Your task to perform on an android device: turn on the 24-hour format for clock Image 0: 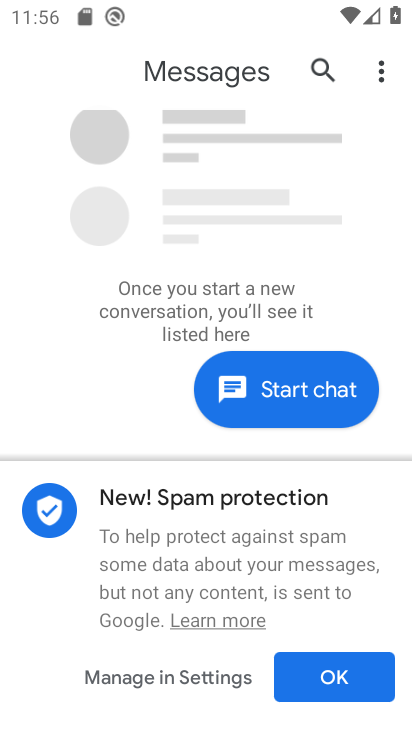
Step 0: press home button
Your task to perform on an android device: turn on the 24-hour format for clock Image 1: 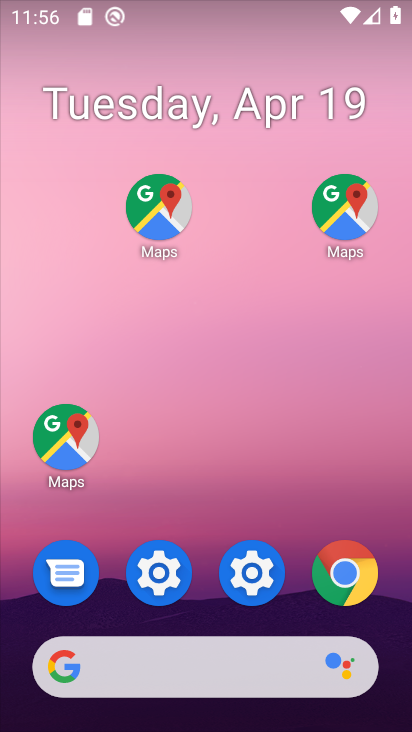
Step 1: drag from (237, 513) to (142, 181)
Your task to perform on an android device: turn on the 24-hour format for clock Image 2: 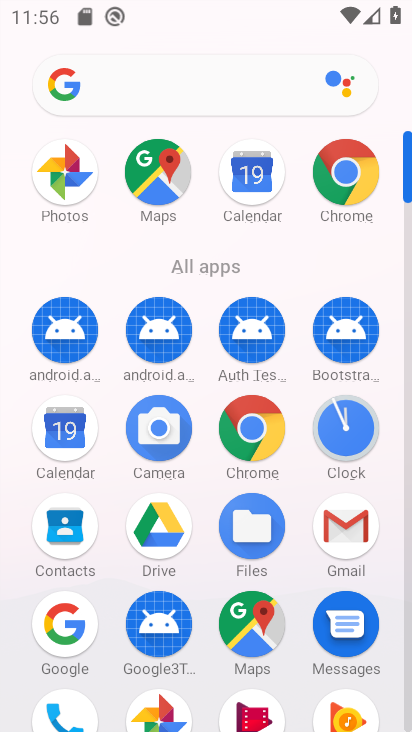
Step 2: click (338, 425)
Your task to perform on an android device: turn on the 24-hour format for clock Image 3: 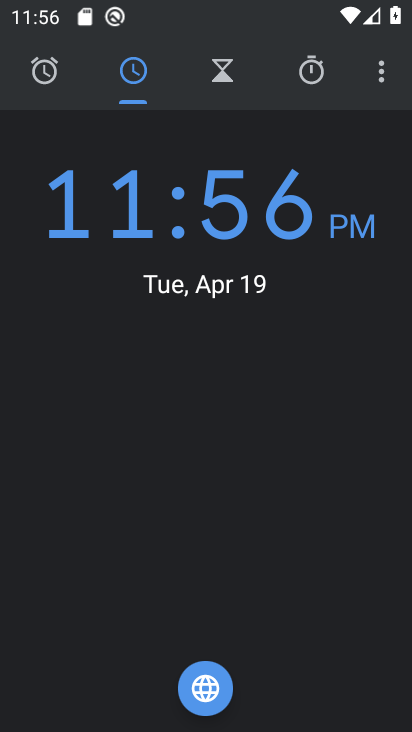
Step 3: click (377, 56)
Your task to perform on an android device: turn on the 24-hour format for clock Image 4: 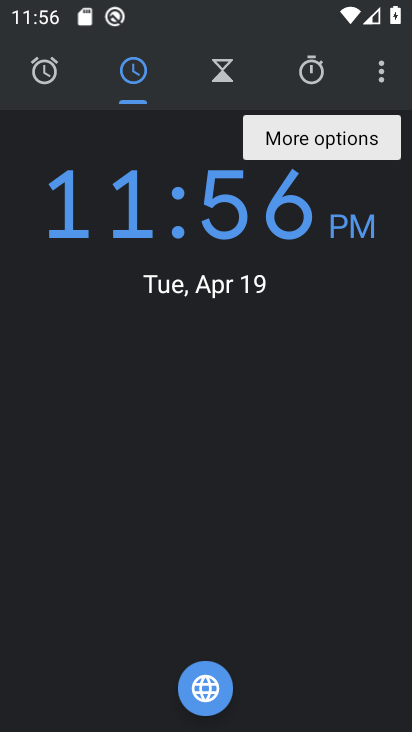
Step 4: click (381, 71)
Your task to perform on an android device: turn on the 24-hour format for clock Image 5: 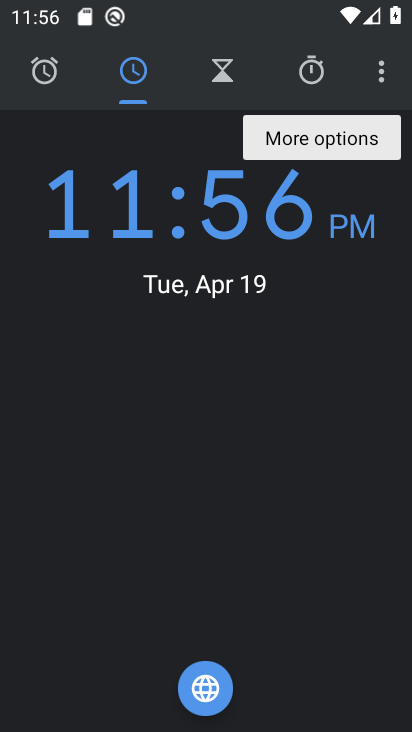
Step 5: click (381, 71)
Your task to perform on an android device: turn on the 24-hour format for clock Image 6: 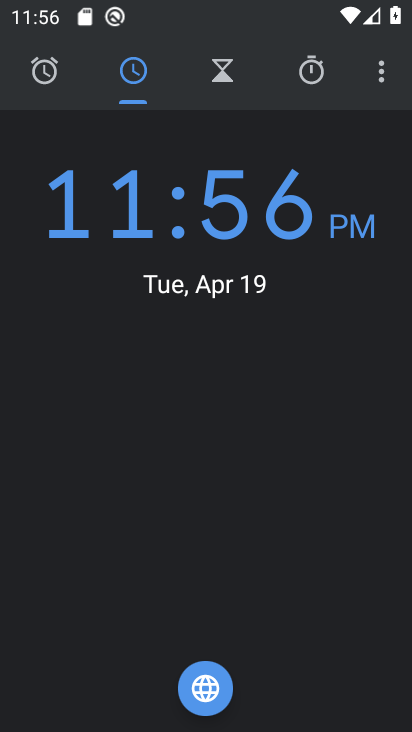
Step 6: click (380, 69)
Your task to perform on an android device: turn on the 24-hour format for clock Image 7: 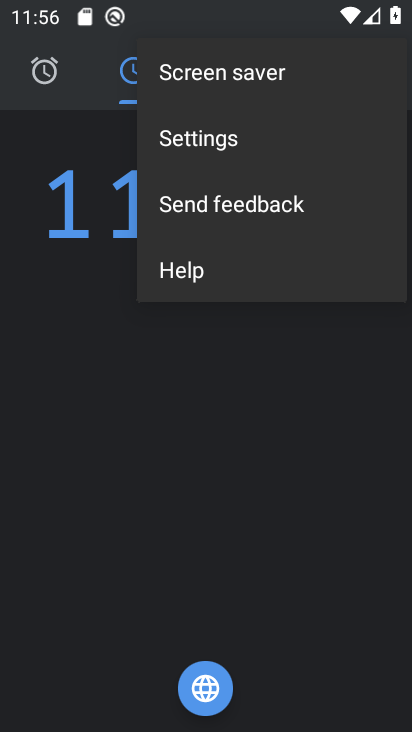
Step 7: click (193, 128)
Your task to perform on an android device: turn on the 24-hour format for clock Image 8: 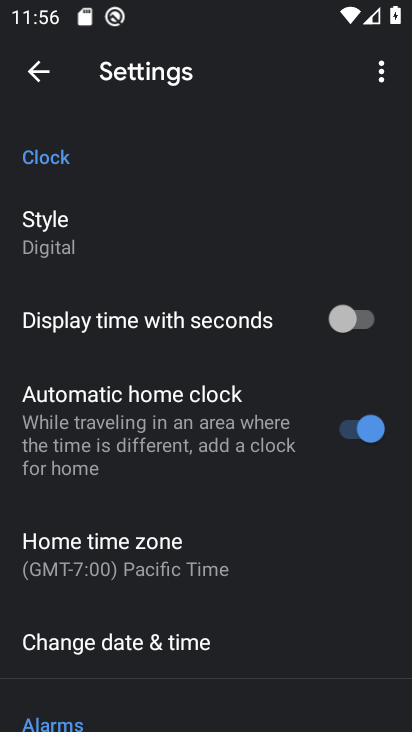
Step 8: drag from (177, 489) to (163, 356)
Your task to perform on an android device: turn on the 24-hour format for clock Image 9: 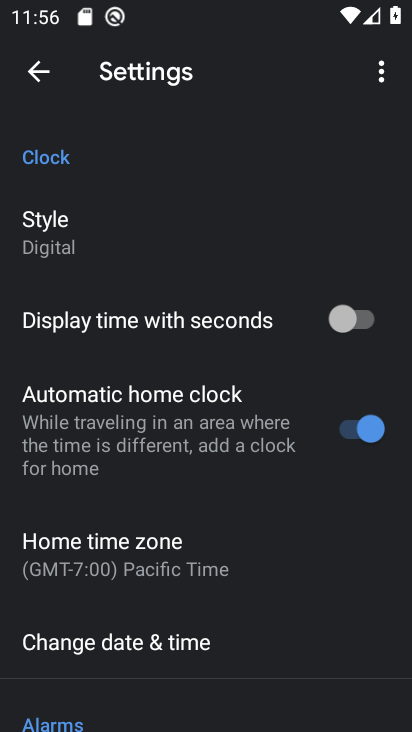
Step 9: drag from (162, 566) to (114, 315)
Your task to perform on an android device: turn on the 24-hour format for clock Image 10: 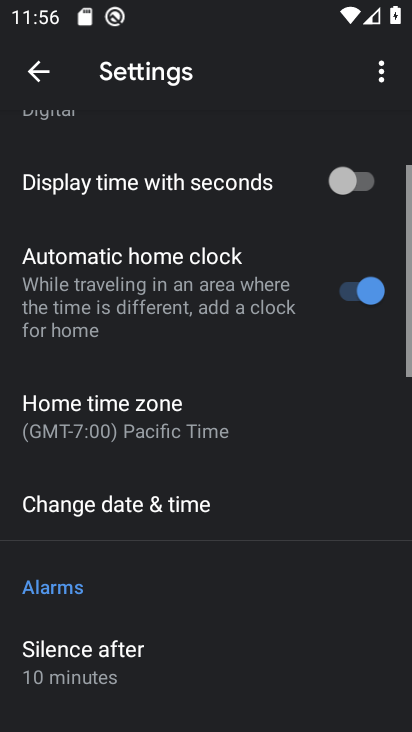
Step 10: drag from (136, 380) to (136, 260)
Your task to perform on an android device: turn on the 24-hour format for clock Image 11: 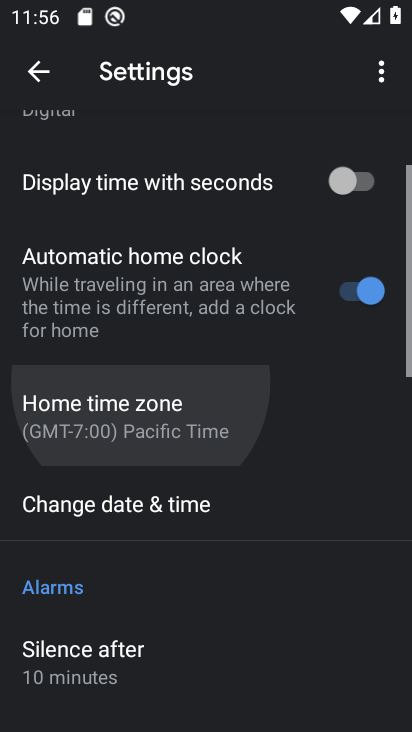
Step 11: drag from (230, 565) to (207, 106)
Your task to perform on an android device: turn on the 24-hour format for clock Image 12: 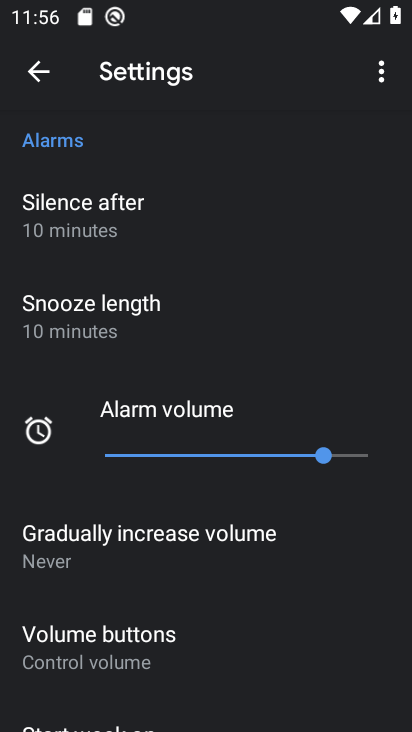
Step 12: drag from (146, 367) to (146, 187)
Your task to perform on an android device: turn on the 24-hour format for clock Image 13: 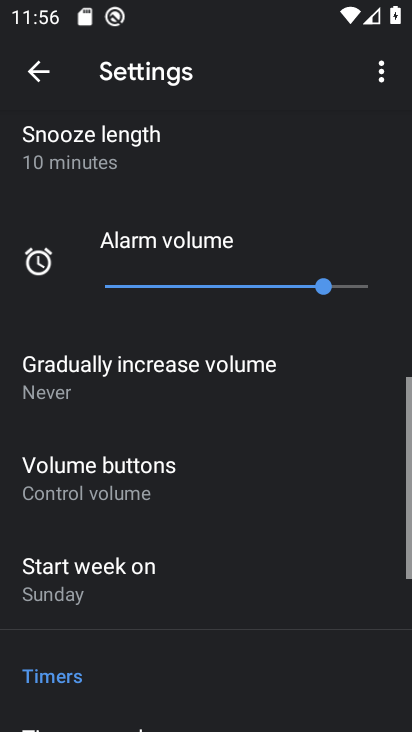
Step 13: drag from (89, 290) to (71, 128)
Your task to perform on an android device: turn on the 24-hour format for clock Image 14: 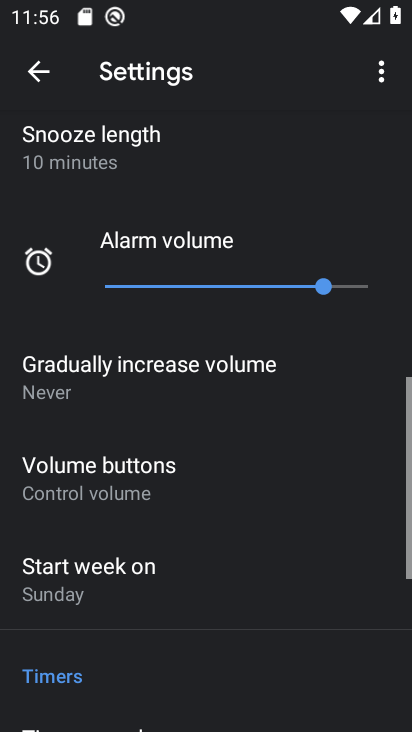
Step 14: drag from (101, 349) to (91, 250)
Your task to perform on an android device: turn on the 24-hour format for clock Image 15: 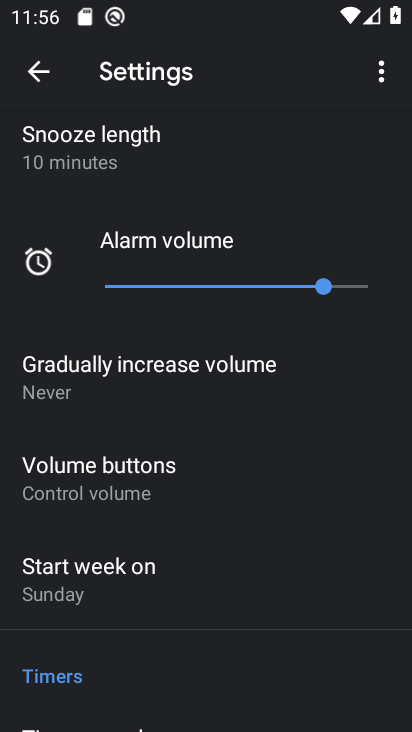
Step 15: drag from (157, 558) to (99, 341)
Your task to perform on an android device: turn on the 24-hour format for clock Image 16: 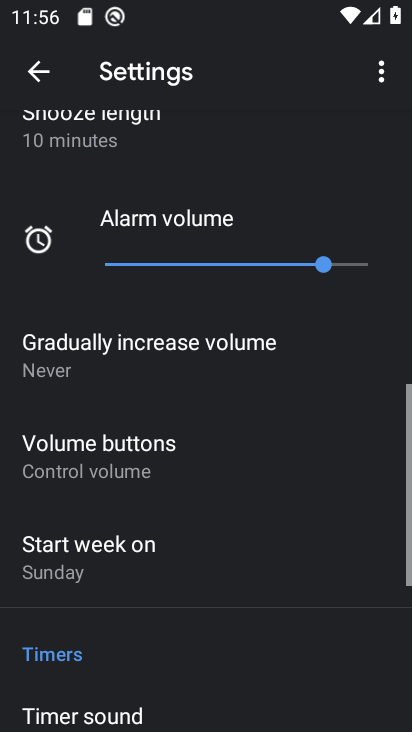
Step 16: drag from (284, 580) to (234, 230)
Your task to perform on an android device: turn on the 24-hour format for clock Image 17: 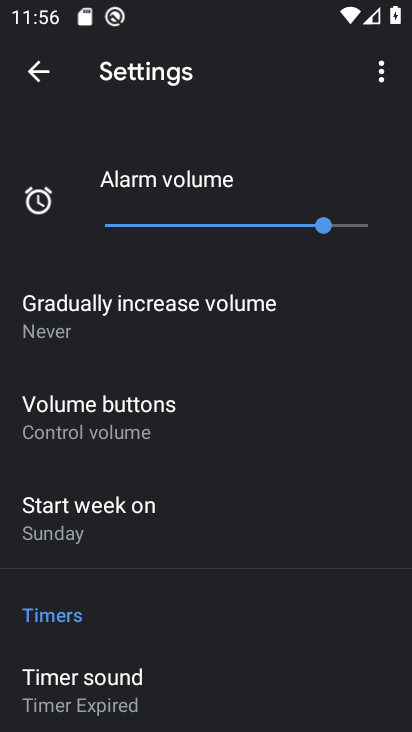
Step 17: drag from (177, 475) to (161, 313)
Your task to perform on an android device: turn on the 24-hour format for clock Image 18: 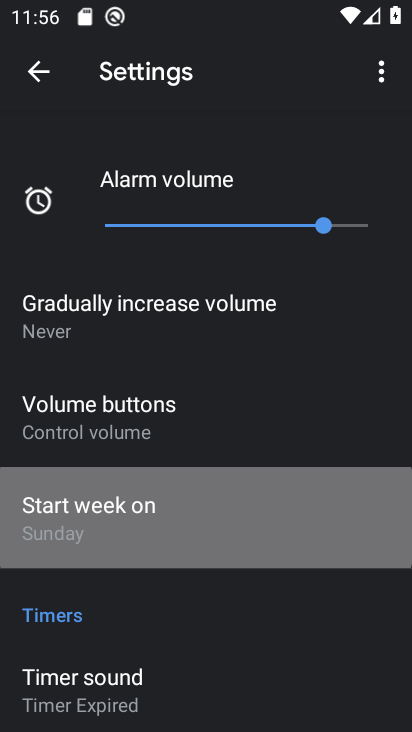
Step 18: drag from (243, 203) to (261, 56)
Your task to perform on an android device: turn on the 24-hour format for clock Image 19: 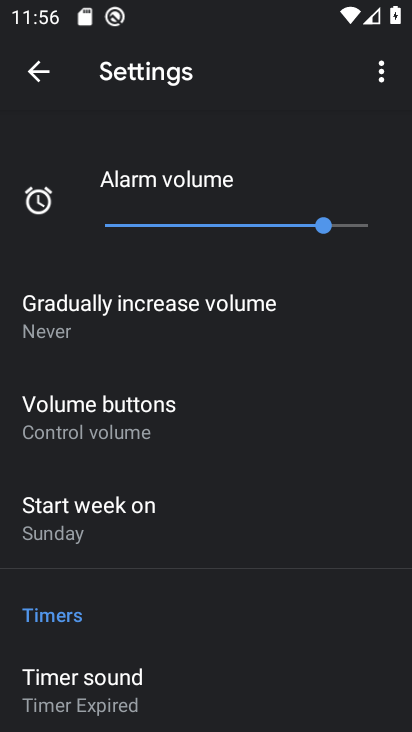
Step 19: drag from (106, 606) to (119, 359)
Your task to perform on an android device: turn on the 24-hour format for clock Image 20: 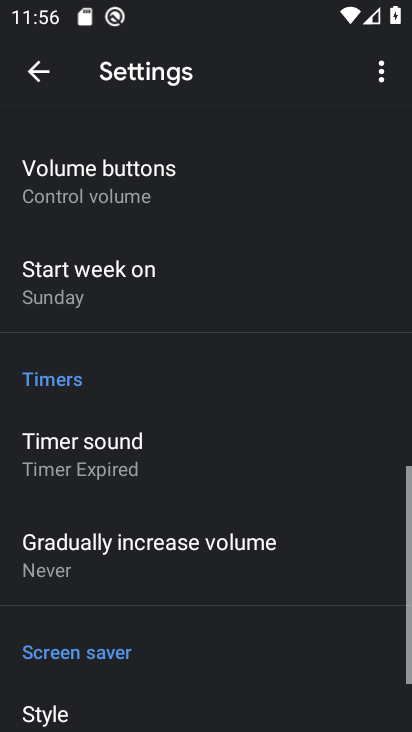
Step 20: drag from (107, 655) to (97, 288)
Your task to perform on an android device: turn on the 24-hour format for clock Image 21: 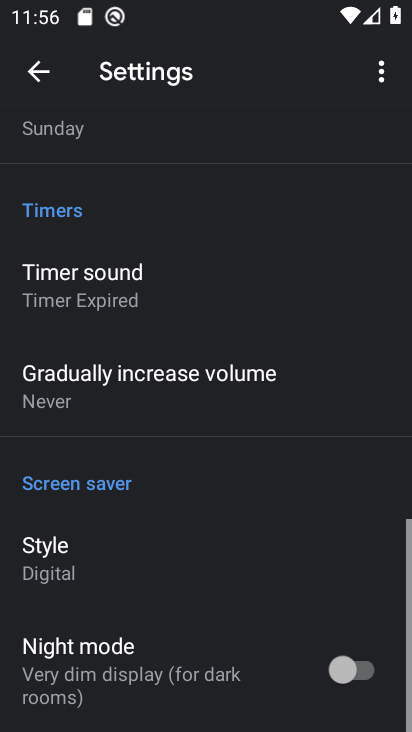
Step 21: drag from (228, 609) to (259, 191)
Your task to perform on an android device: turn on the 24-hour format for clock Image 22: 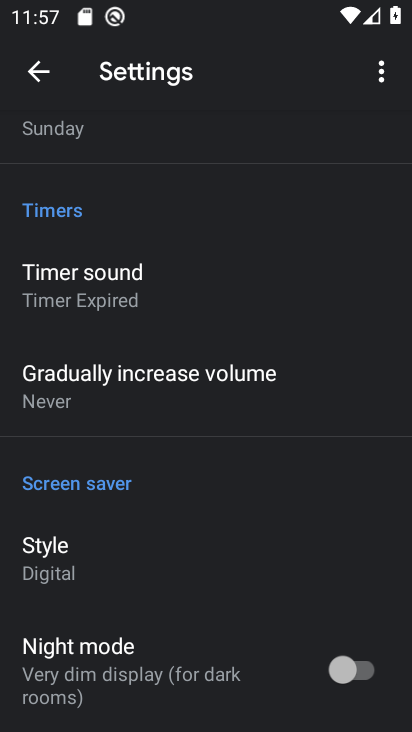
Step 22: drag from (153, 567) to (131, 213)
Your task to perform on an android device: turn on the 24-hour format for clock Image 23: 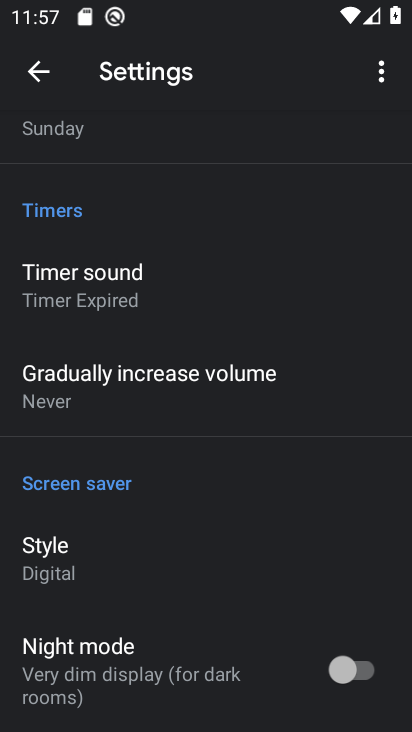
Step 23: drag from (156, 582) to (184, 278)
Your task to perform on an android device: turn on the 24-hour format for clock Image 24: 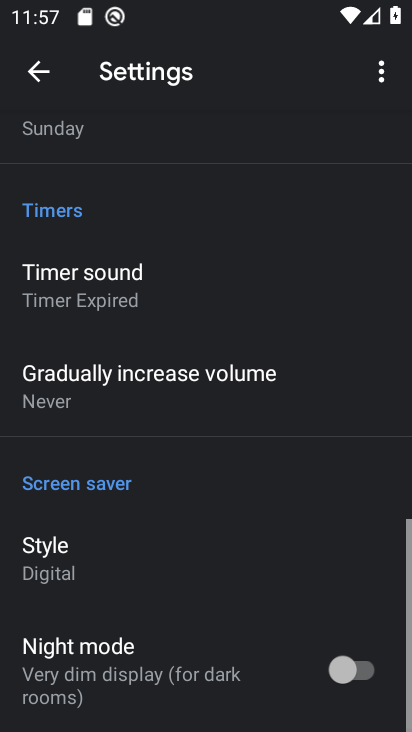
Step 24: drag from (137, 557) to (119, 232)
Your task to perform on an android device: turn on the 24-hour format for clock Image 25: 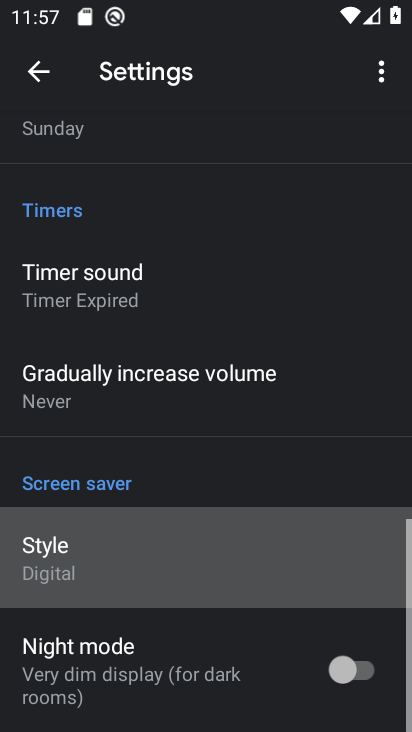
Step 25: drag from (79, 566) to (43, 271)
Your task to perform on an android device: turn on the 24-hour format for clock Image 26: 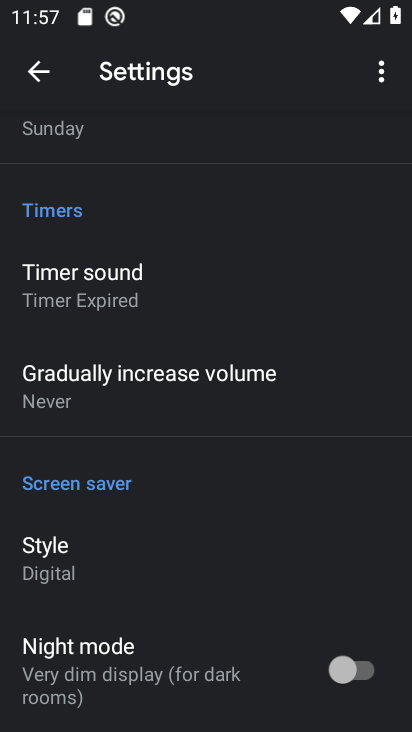
Step 26: drag from (82, 271) to (130, 549)
Your task to perform on an android device: turn on the 24-hour format for clock Image 27: 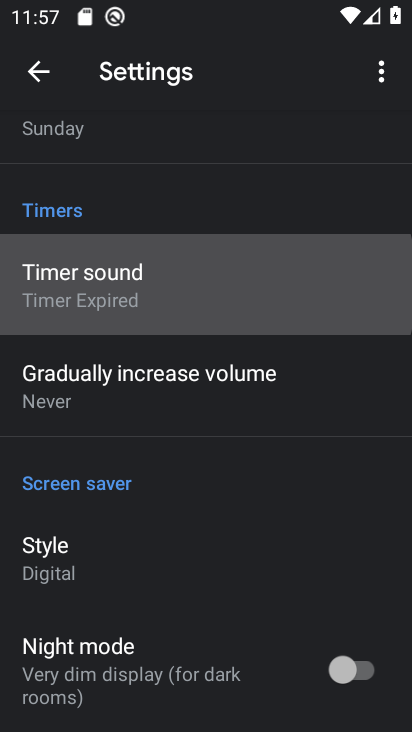
Step 27: drag from (140, 257) to (185, 685)
Your task to perform on an android device: turn on the 24-hour format for clock Image 28: 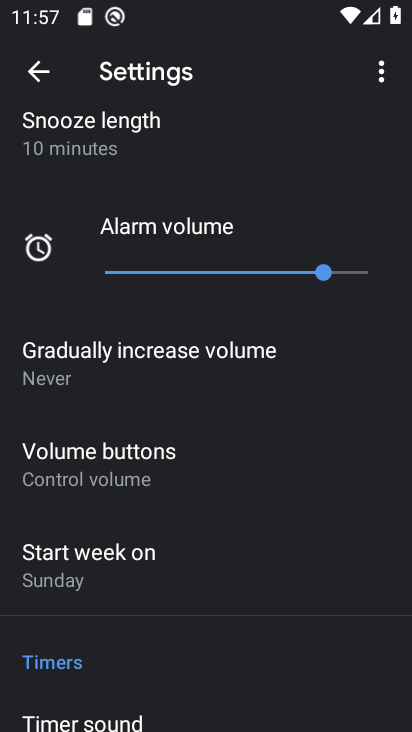
Step 28: drag from (113, 585) to (113, 696)
Your task to perform on an android device: turn on the 24-hour format for clock Image 29: 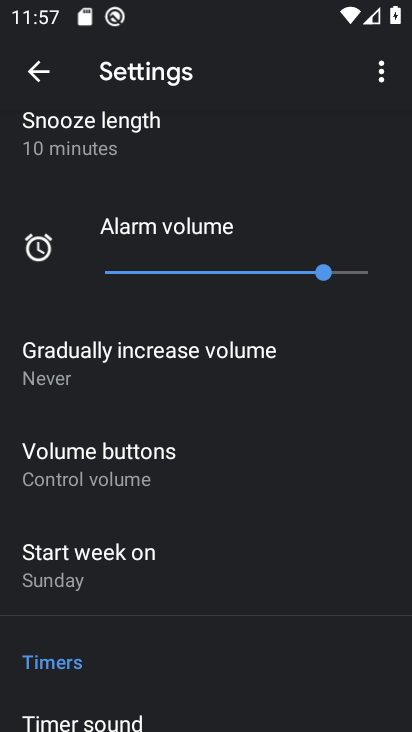
Step 29: drag from (189, 222) to (213, 478)
Your task to perform on an android device: turn on the 24-hour format for clock Image 30: 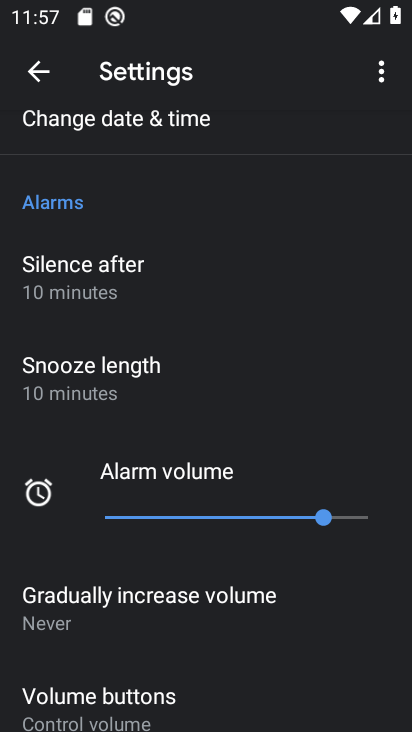
Step 30: click (81, 121)
Your task to perform on an android device: turn on the 24-hour format for clock Image 31: 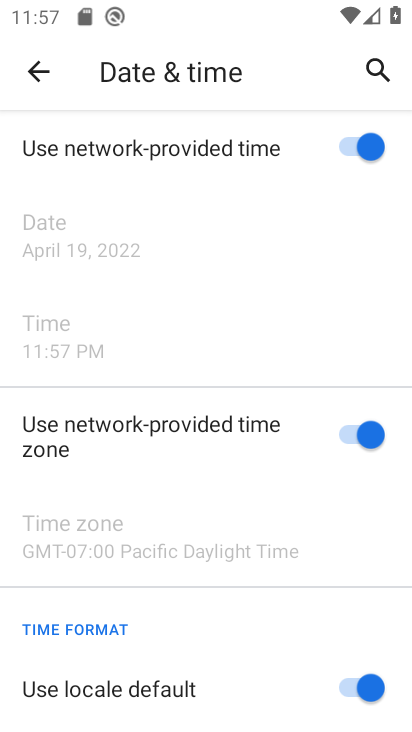
Step 31: drag from (202, 651) to (209, 241)
Your task to perform on an android device: turn on the 24-hour format for clock Image 32: 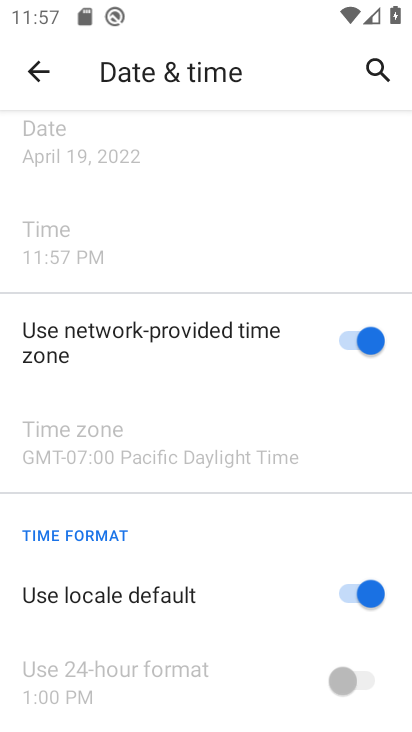
Step 32: click (354, 678)
Your task to perform on an android device: turn on the 24-hour format for clock Image 33: 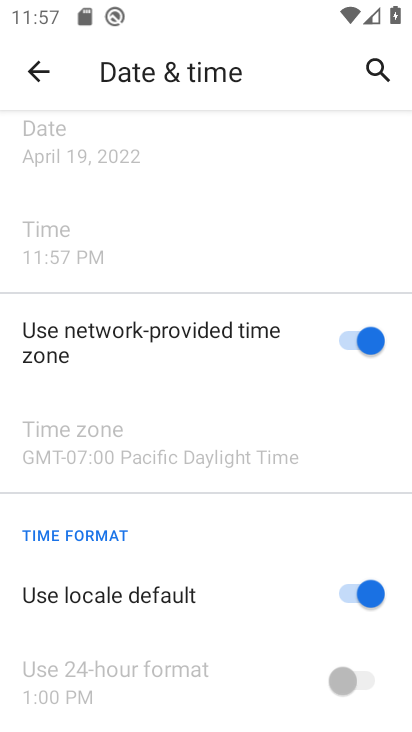
Step 33: click (361, 589)
Your task to perform on an android device: turn on the 24-hour format for clock Image 34: 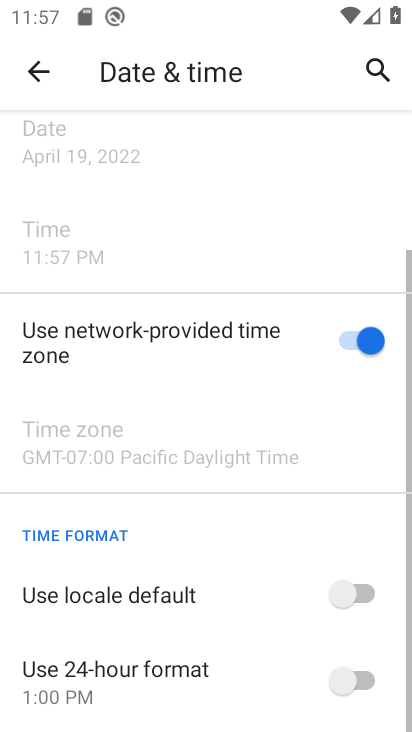
Step 34: click (349, 677)
Your task to perform on an android device: turn on the 24-hour format for clock Image 35: 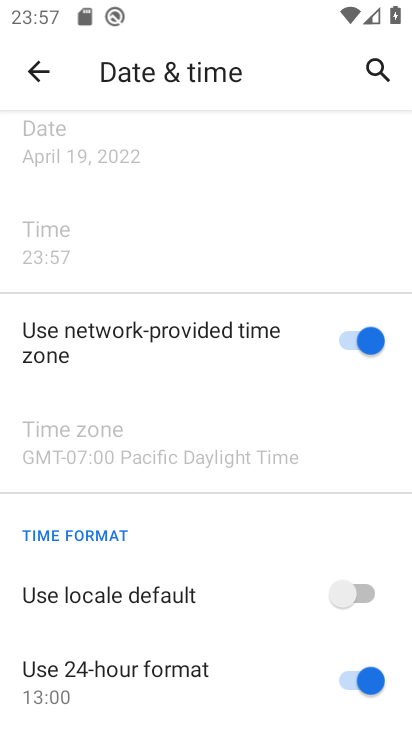
Step 35: task complete